Your task to perform on an android device: check the backup settings in the google photos Image 0: 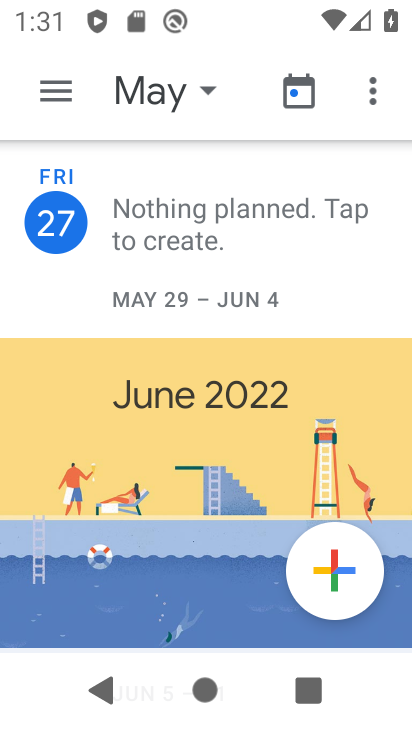
Step 0: press home button
Your task to perform on an android device: check the backup settings in the google photos Image 1: 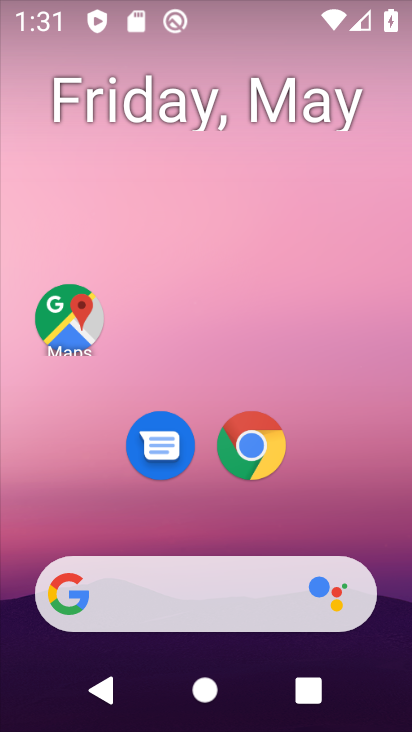
Step 1: press back button
Your task to perform on an android device: check the backup settings in the google photos Image 2: 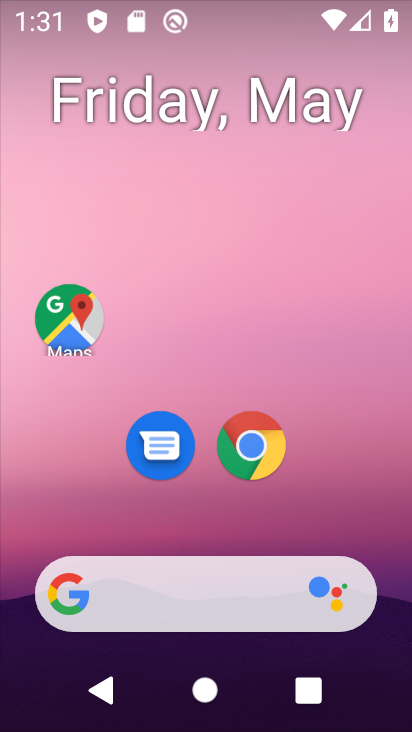
Step 2: drag from (209, 525) to (263, 12)
Your task to perform on an android device: check the backup settings in the google photos Image 3: 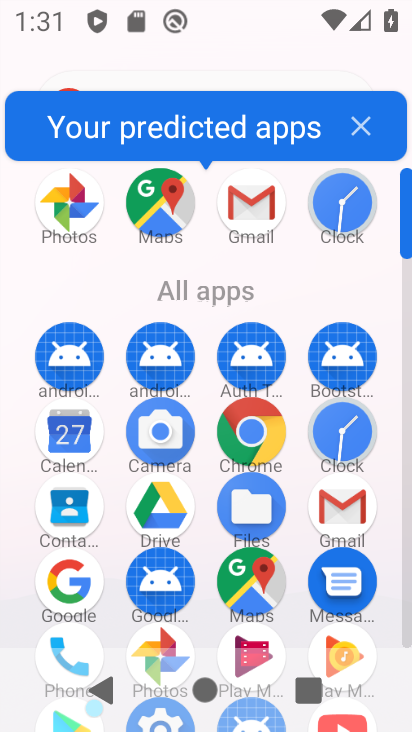
Step 3: drag from (203, 568) to (214, 125)
Your task to perform on an android device: check the backup settings in the google photos Image 4: 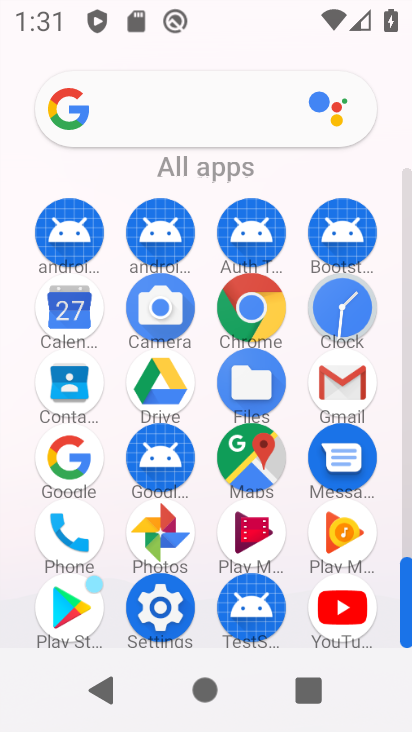
Step 4: click (157, 525)
Your task to perform on an android device: check the backup settings in the google photos Image 5: 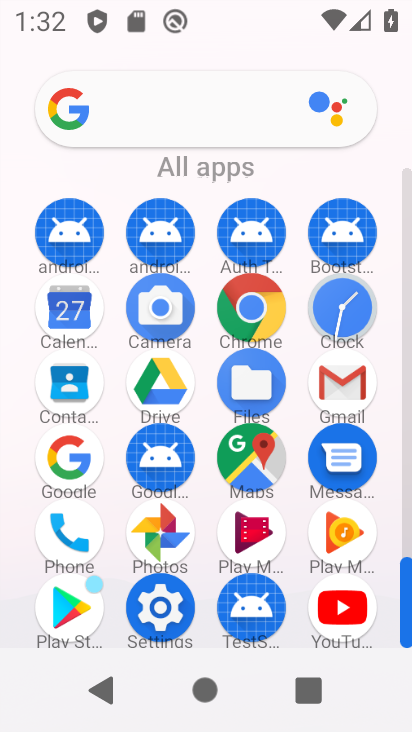
Step 5: click (155, 527)
Your task to perform on an android device: check the backup settings in the google photos Image 6: 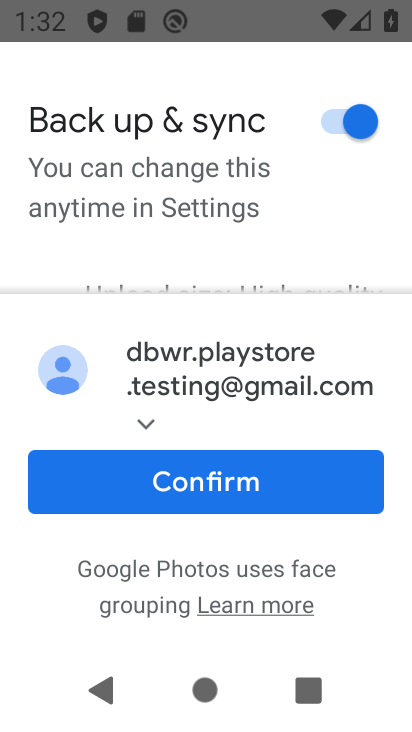
Step 6: click (209, 481)
Your task to perform on an android device: check the backup settings in the google photos Image 7: 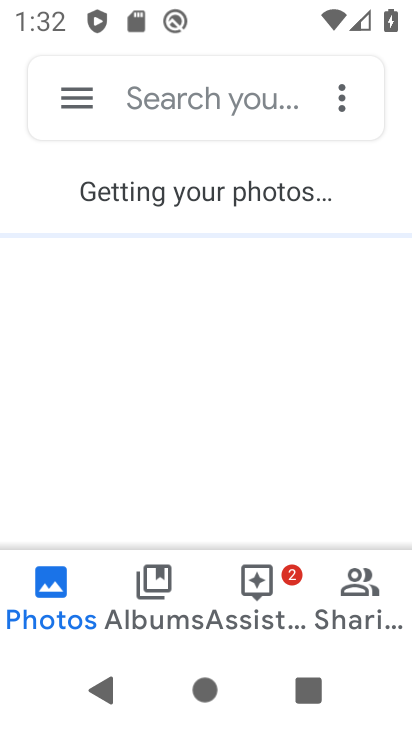
Step 7: click (61, 96)
Your task to perform on an android device: check the backup settings in the google photos Image 8: 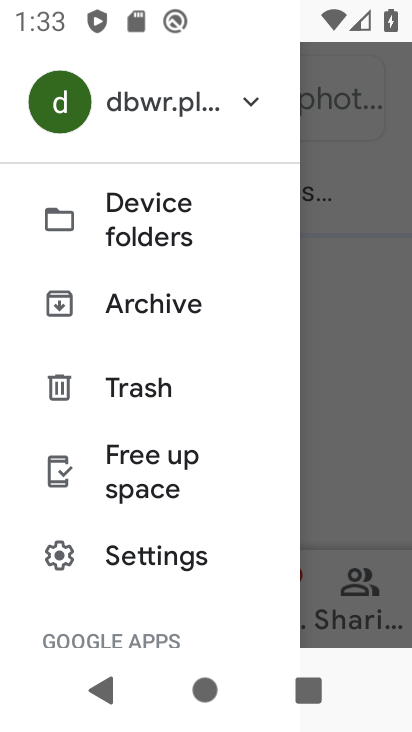
Step 8: click (121, 555)
Your task to perform on an android device: check the backup settings in the google photos Image 9: 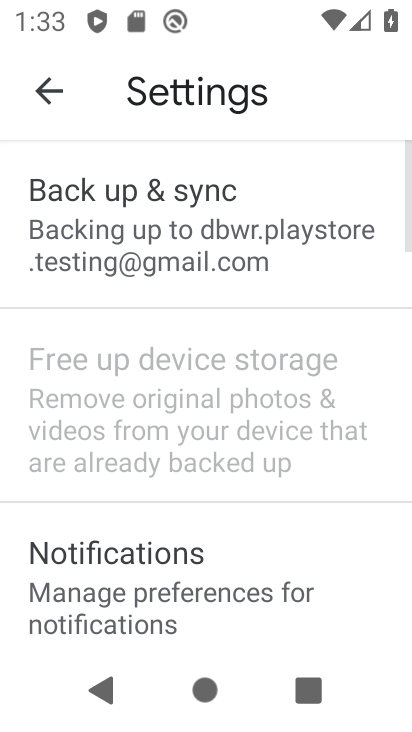
Step 9: click (196, 224)
Your task to perform on an android device: check the backup settings in the google photos Image 10: 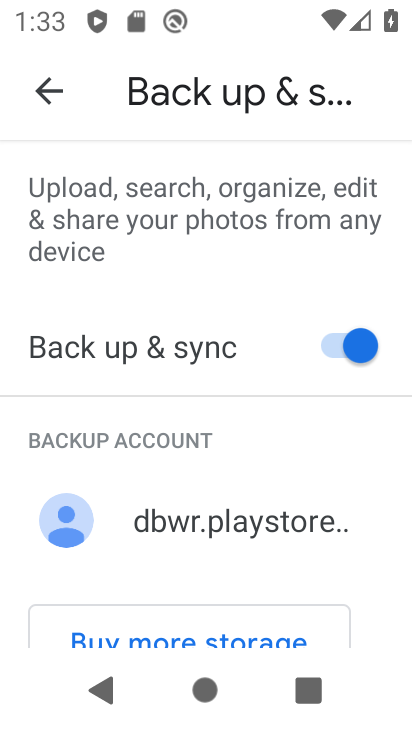
Step 10: task complete